Your task to perform on an android device: Open calendar and show me the fourth week of next month Image 0: 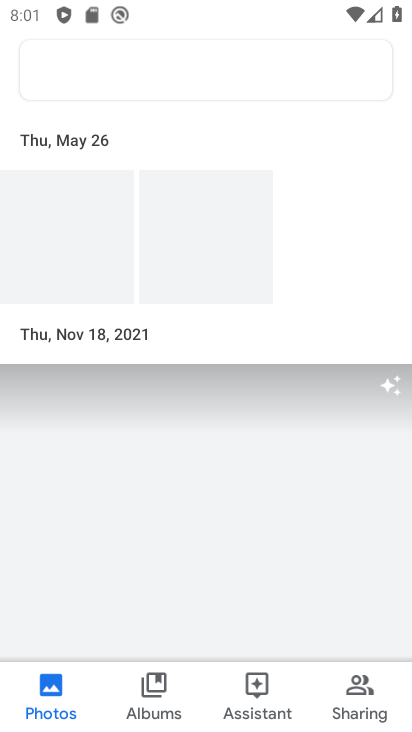
Step 0: press home button
Your task to perform on an android device: Open calendar and show me the fourth week of next month Image 1: 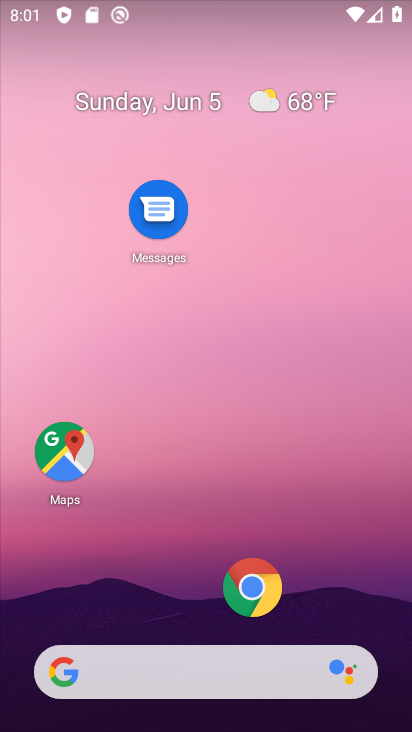
Step 1: drag from (200, 631) to (253, 36)
Your task to perform on an android device: Open calendar and show me the fourth week of next month Image 2: 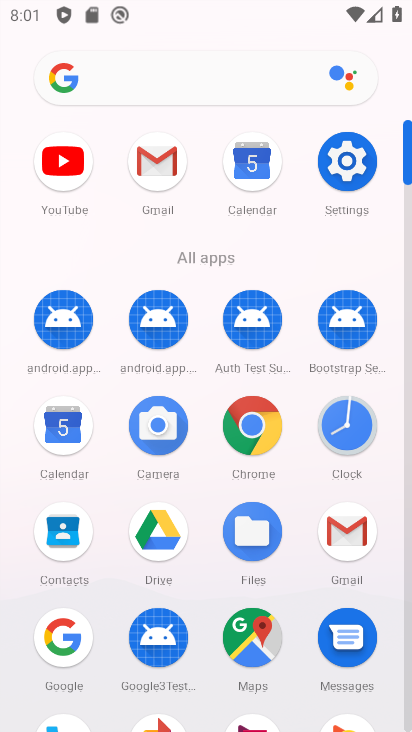
Step 2: click (59, 420)
Your task to perform on an android device: Open calendar and show me the fourth week of next month Image 3: 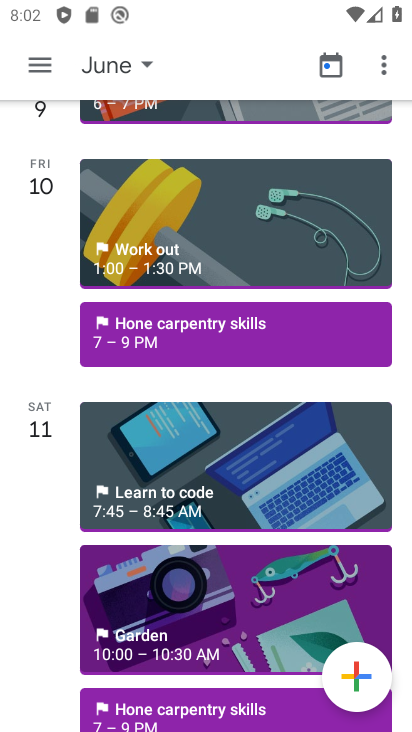
Step 3: click (137, 70)
Your task to perform on an android device: Open calendar and show me the fourth week of next month Image 4: 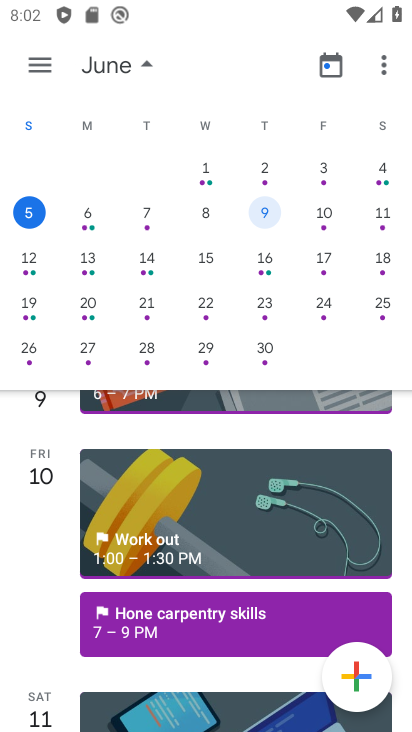
Step 4: drag from (354, 267) to (34, 414)
Your task to perform on an android device: Open calendar and show me the fourth week of next month Image 5: 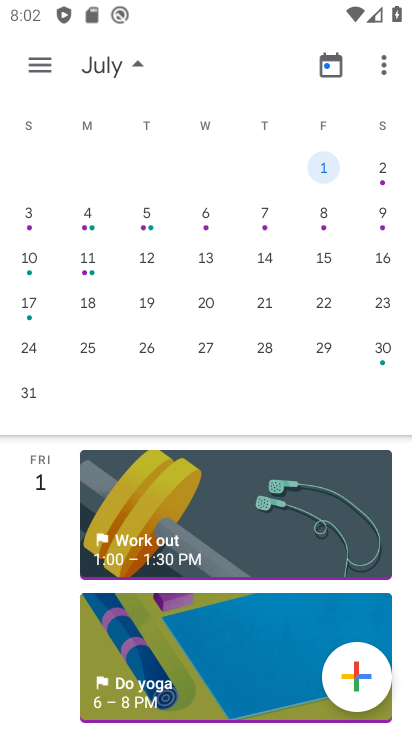
Step 5: click (33, 346)
Your task to perform on an android device: Open calendar and show me the fourth week of next month Image 6: 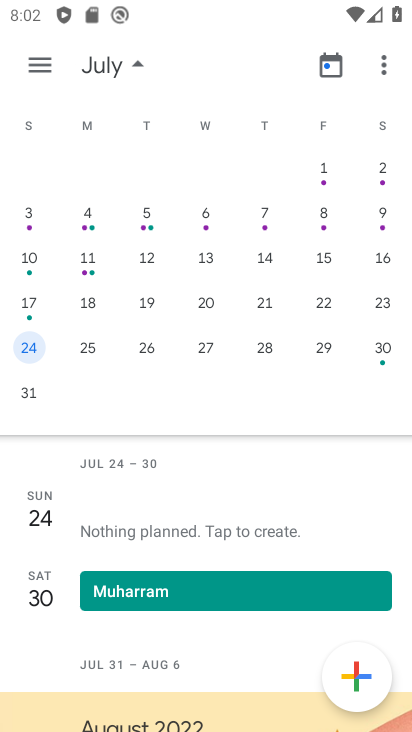
Step 6: click (137, 59)
Your task to perform on an android device: Open calendar and show me the fourth week of next month Image 7: 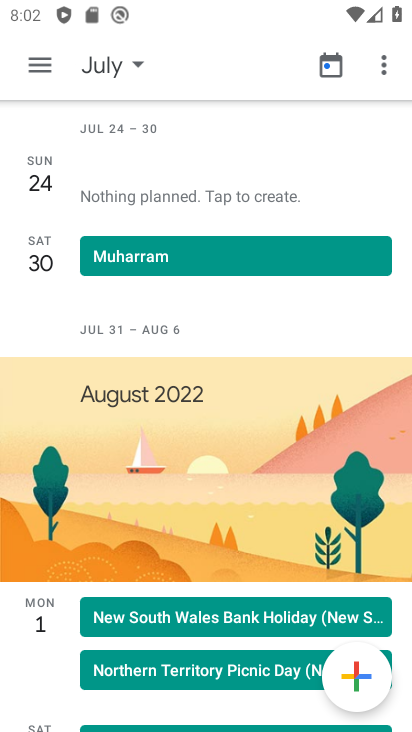
Step 7: task complete